Your task to perform on an android device: Open notification settings Image 0: 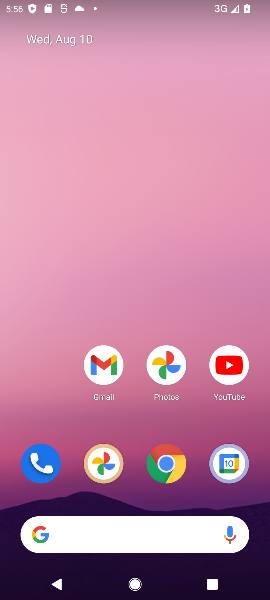
Step 0: drag from (140, 497) to (79, 67)
Your task to perform on an android device: Open notification settings Image 1: 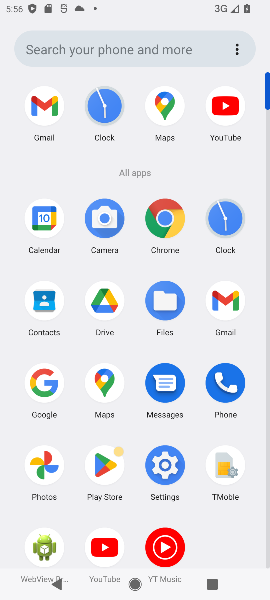
Step 1: click (164, 472)
Your task to perform on an android device: Open notification settings Image 2: 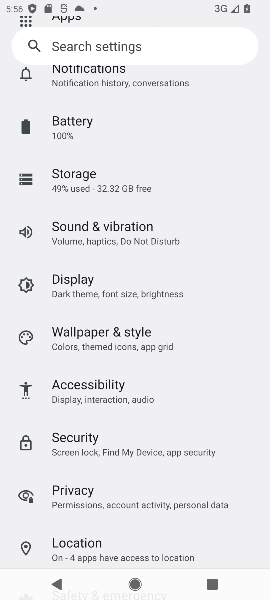
Step 2: click (92, 75)
Your task to perform on an android device: Open notification settings Image 3: 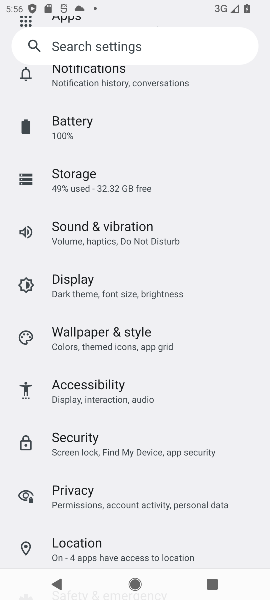
Step 3: drag from (131, 136) to (148, 404)
Your task to perform on an android device: Open notification settings Image 4: 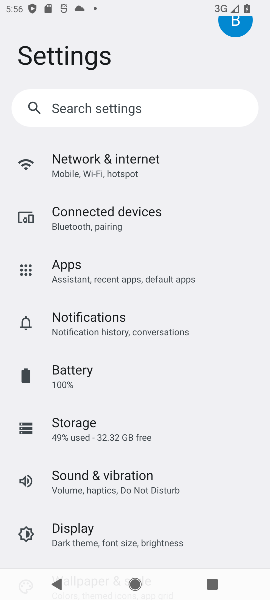
Step 4: click (66, 316)
Your task to perform on an android device: Open notification settings Image 5: 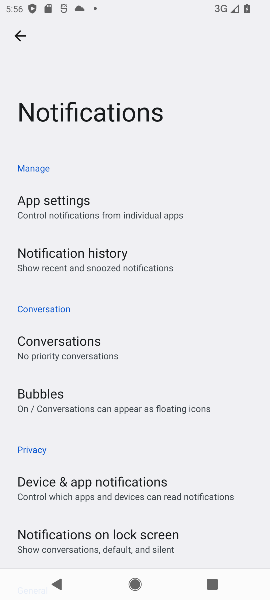
Step 5: task complete